Your task to perform on an android device: set the stopwatch Image 0: 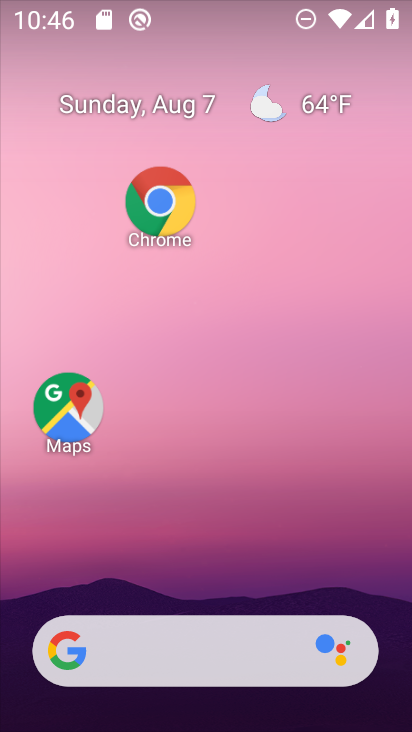
Step 0: drag from (229, 572) to (320, 4)
Your task to perform on an android device: set the stopwatch Image 1: 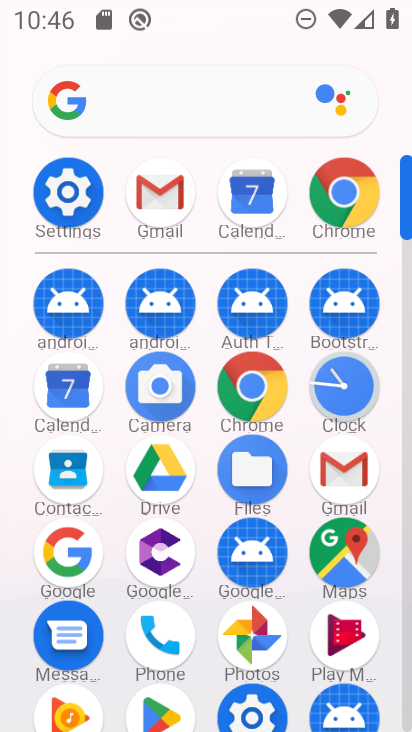
Step 1: click (345, 396)
Your task to perform on an android device: set the stopwatch Image 2: 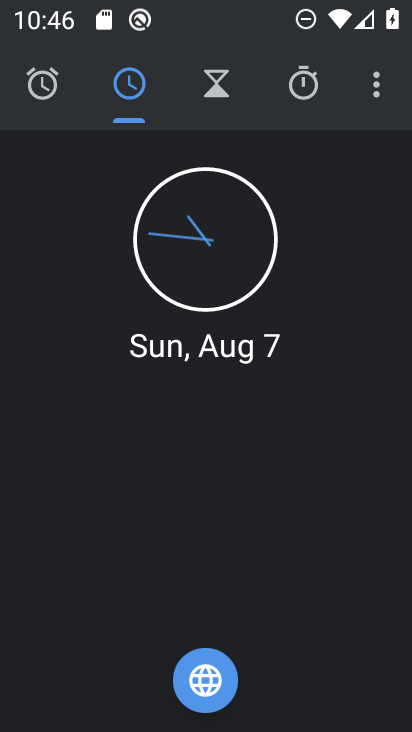
Step 2: click (288, 81)
Your task to perform on an android device: set the stopwatch Image 3: 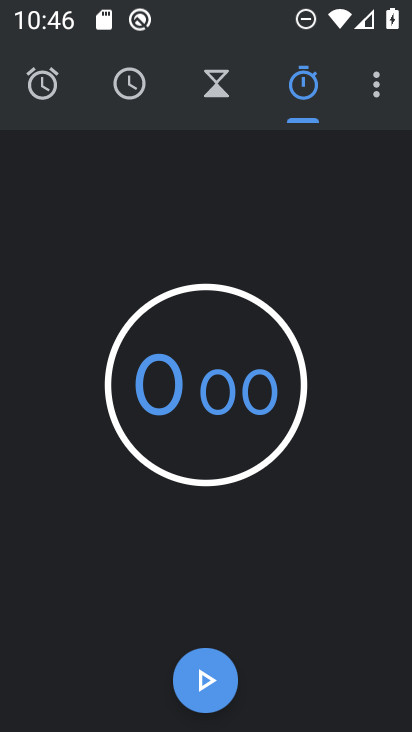
Step 3: click (200, 658)
Your task to perform on an android device: set the stopwatch Image 4: 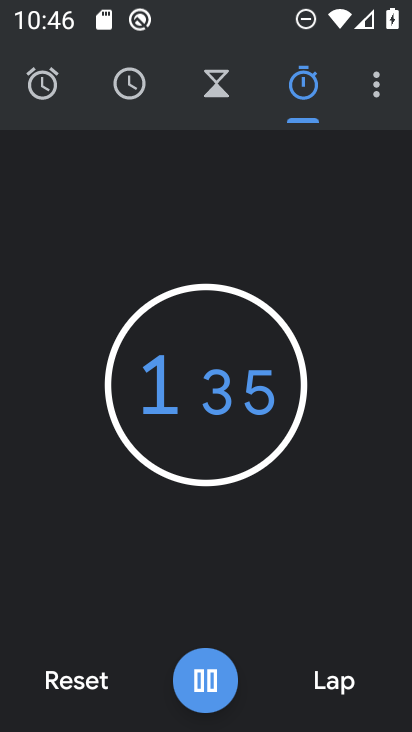
Step 4: click (200, 655)
Your task to perform on an android device: set the stopwatch Image 5: 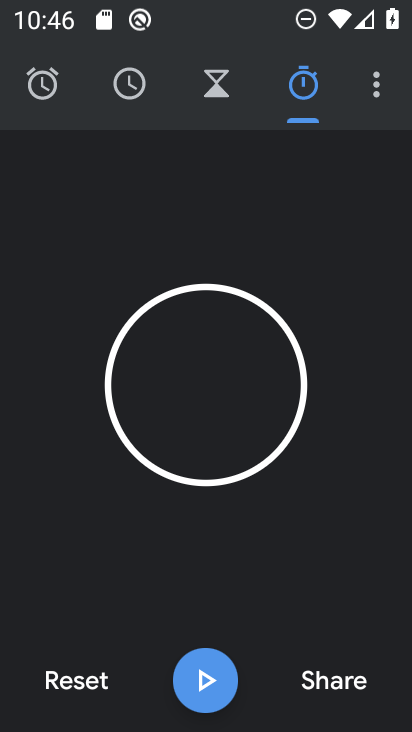
Step 5: task complete